Your task to perform on an android device: Open calendar and show me the second week of next month Image 0: 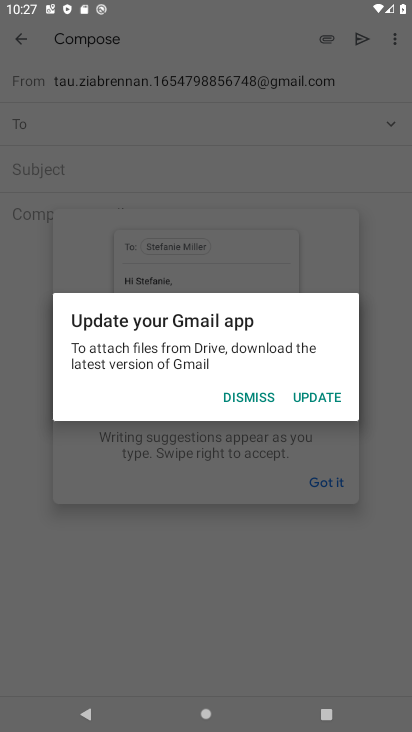
Step 0: press home button
Your task to perform on an android device: Open calendar and show me the second week of next month Image 1: 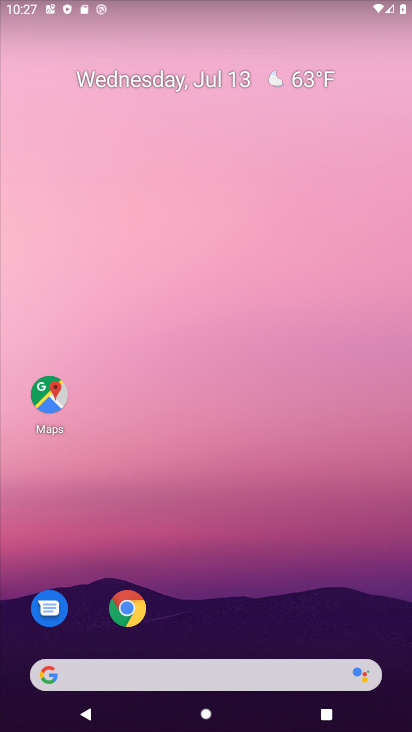
Step 1: drag from (244, 584) to (240, 108)
Your task to perform on an android device: Open calendar and show me the second week of next month Image 2: 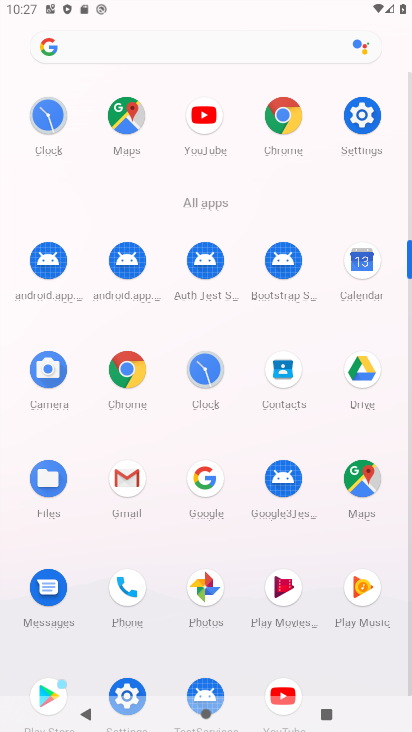
Step 2: click (359, 258)
Your task to perform on an android device: Open calendar and show me the second week of next month Image 3: 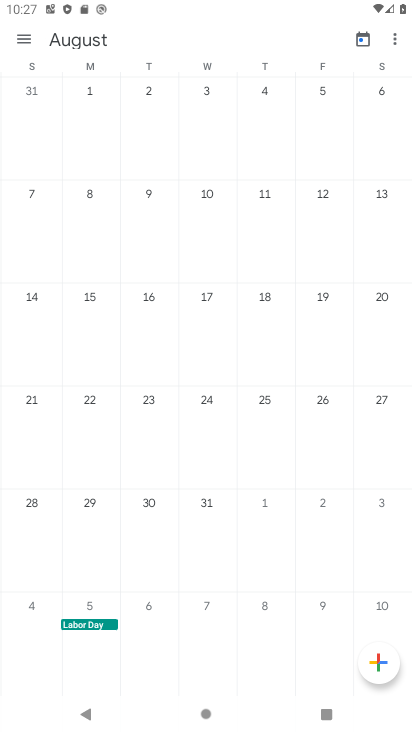
Step 3: click (27, 41)
Your task to perform on an android device: Open calendar and show me the second week of next month Image 4: 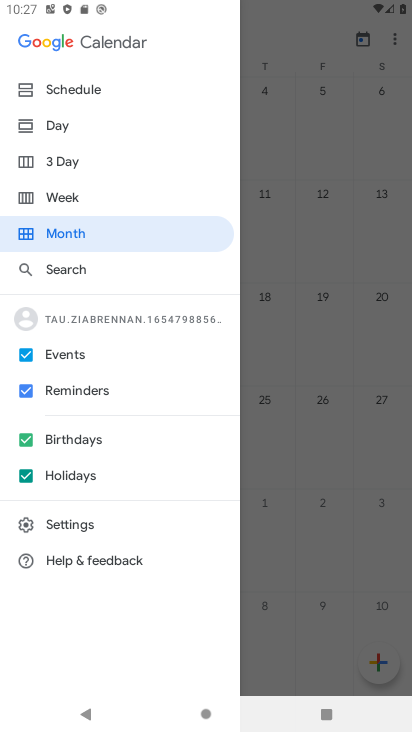
Step 4: click (61, 199)
Your task to perform on an android device: Open calendar and show me the second week of next month Image 5: 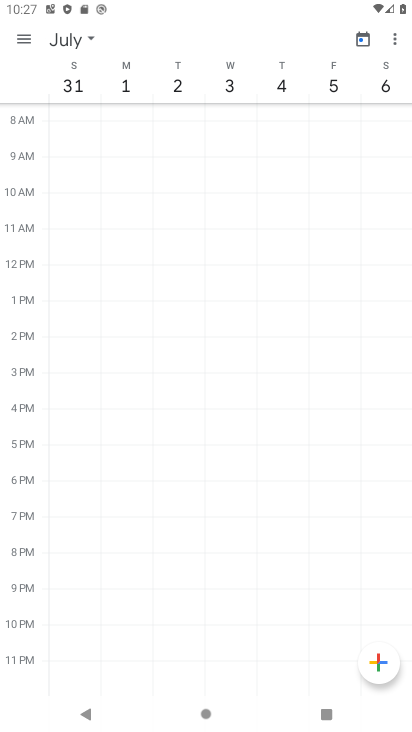
Step 5: task complete